Your task to perform on an android device: Go to eBay Image 0: 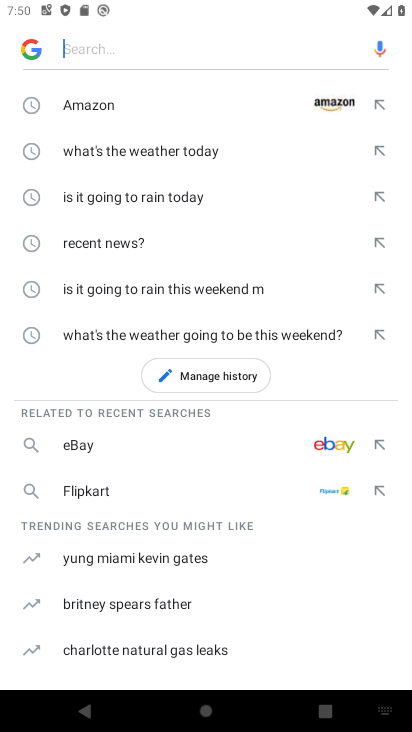
Step 0: press home button
Your task to perform on an android device: Go to eBay Image 1: 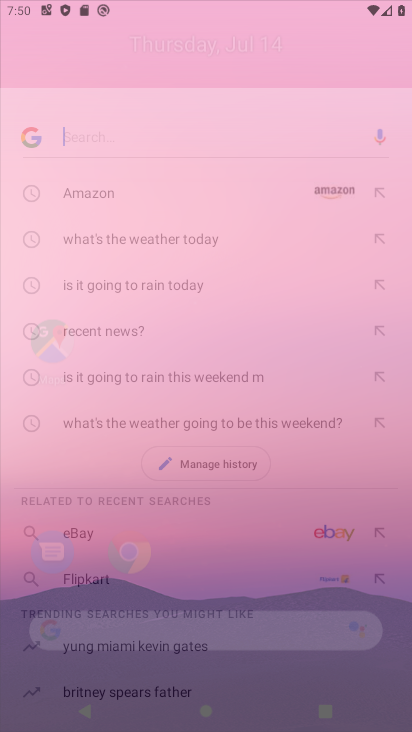
Step 1: drag from (364, 640) to (161, 44)
Your task to perform on an android device: Go to eBay Image 2: 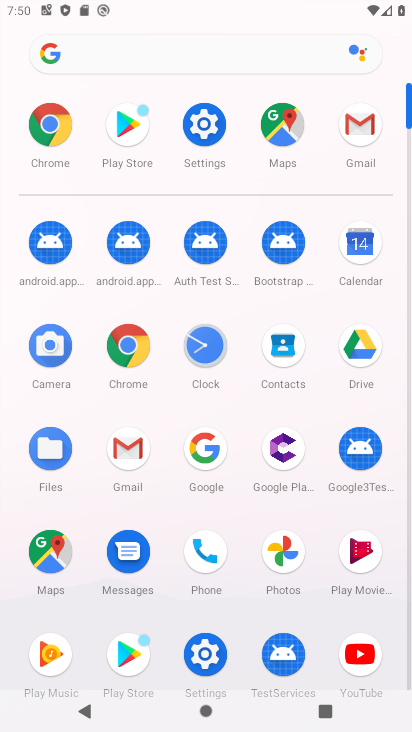
Step 2: click (210, 450)
Your task to perform on an android device: Go to eBay Image 3: 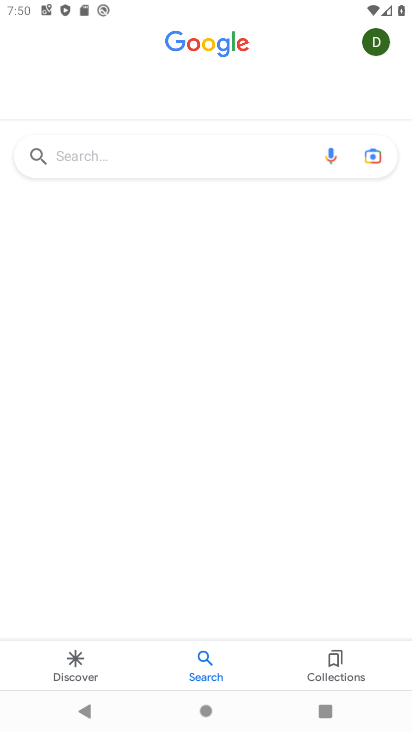
Step 3: click (80, 157)
Your task to perform on an android device: Go to eBay Image 4: 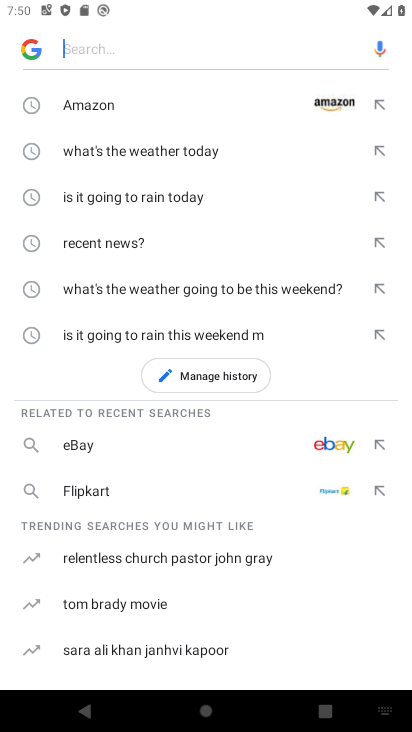
Step 4: click (57, 453)
Your task to perform on an android device: Go to eBay Image 5: 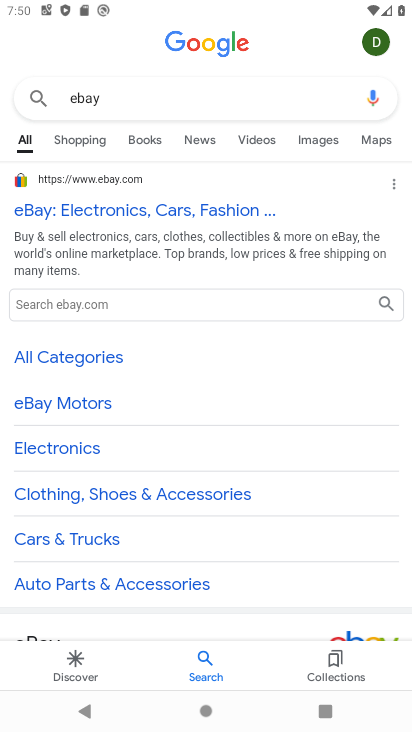
Step 5: task complete